Your task to perform on an android device: turn off notifications settings in the gmail app Image 0: 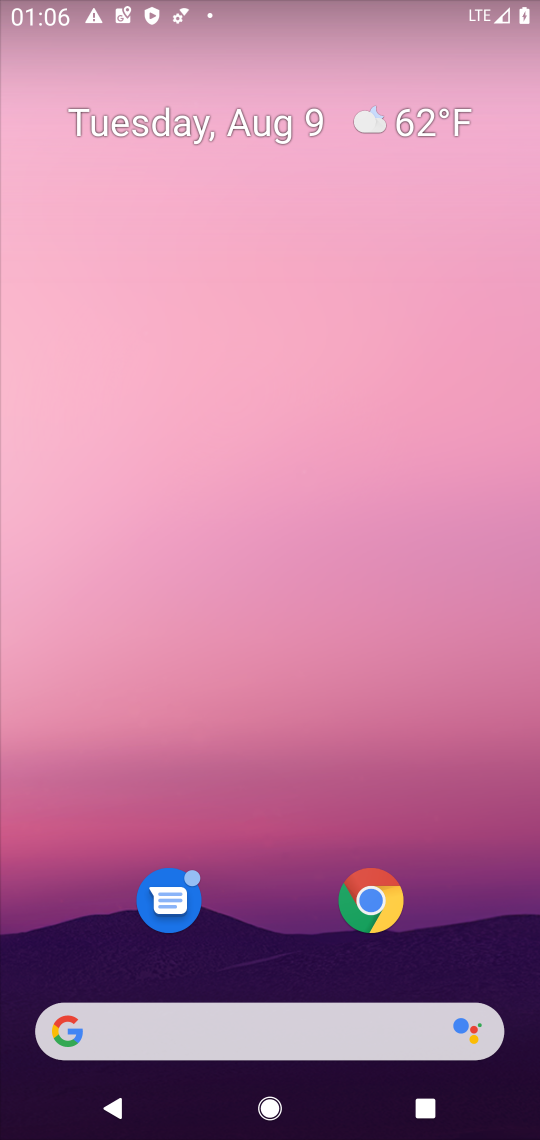
Step 0: press home button
Your task to perform on an android device: turn off notifications settings in the gmail app Image 1: 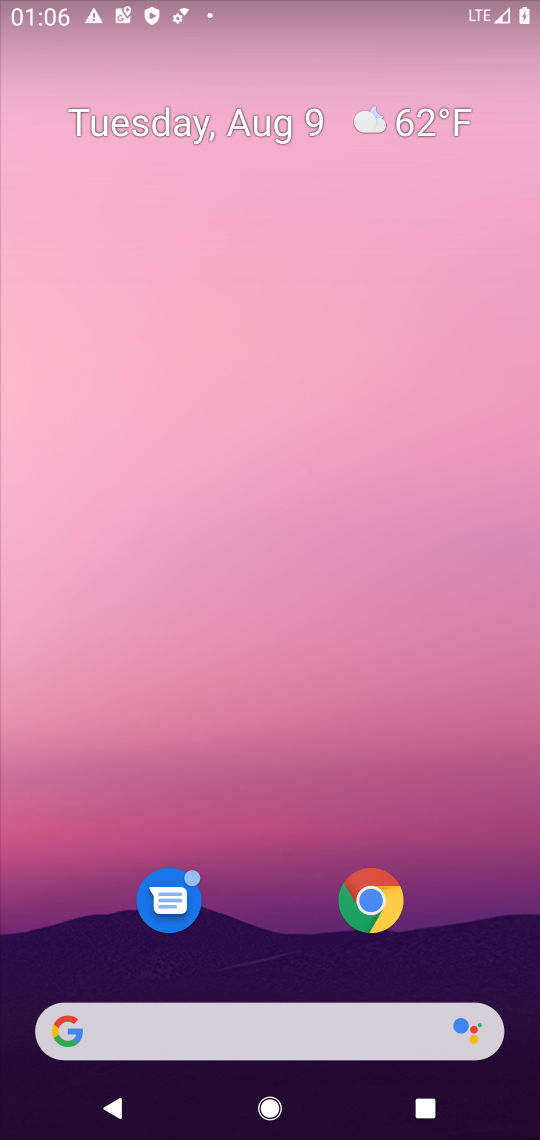
Step 1: drag from (289, 945) to (327, 199)
Your task to perform on an android device: turn off notifications settings in the gmail app Image 2: 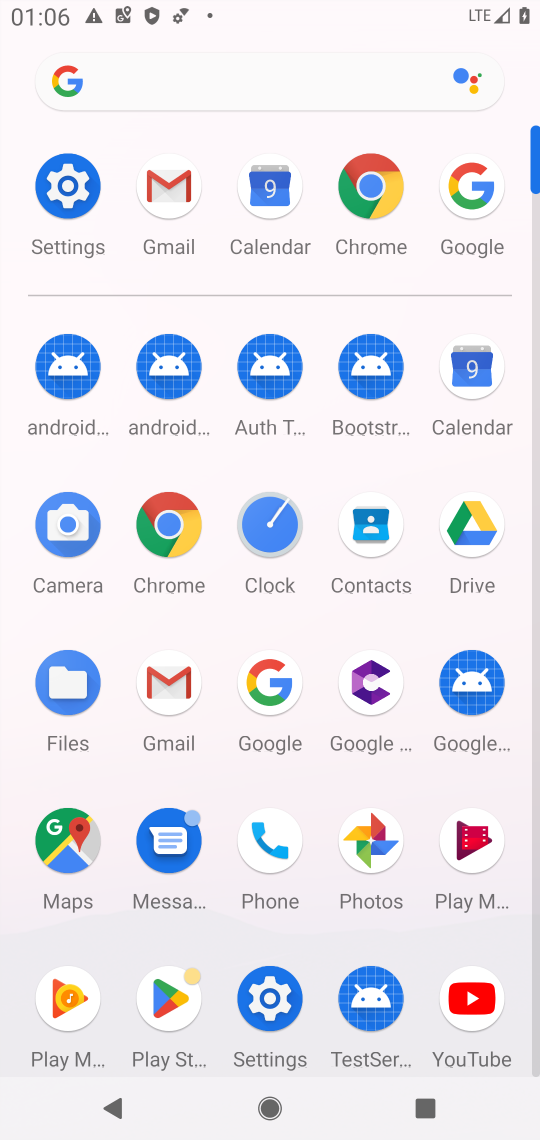
Step 2: click (168, 670)
Your task to perform on an android device: turn off notifications settings in the gmail app Image 3: 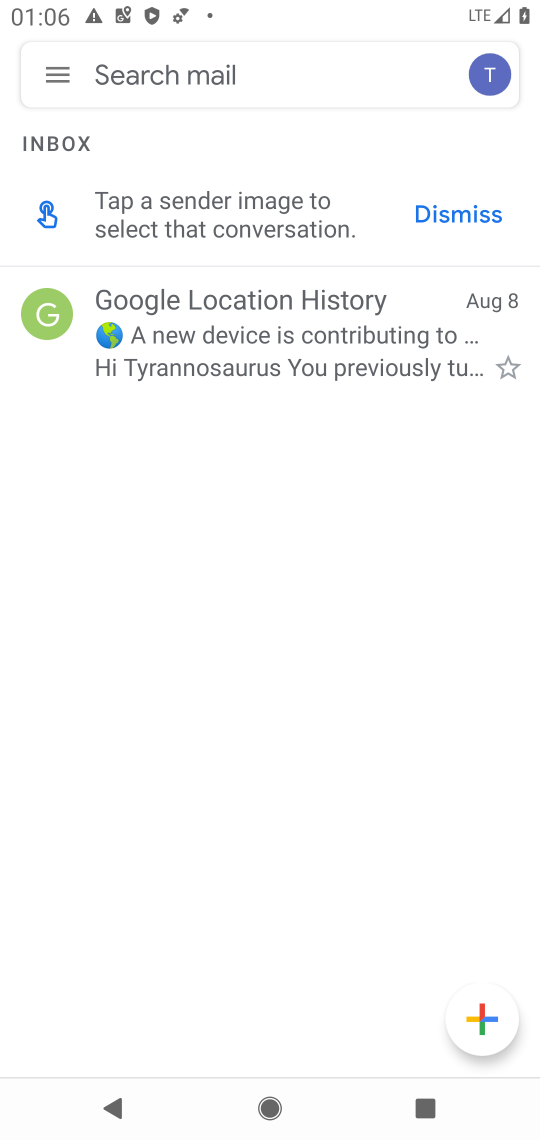
Step 3: click (58, 80)
Your task to perform on an android device: turn off notifications settings in the gmail app Image 4: 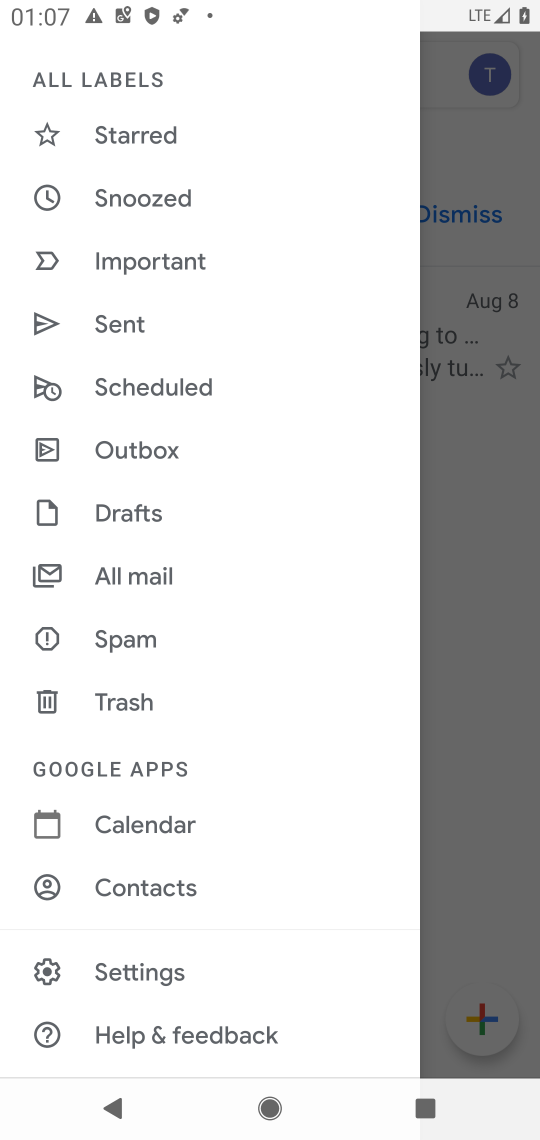
Step 4: click (146, 977)
Your task to perform on an android device: turn off notifications settings in the gmail app Image 5: 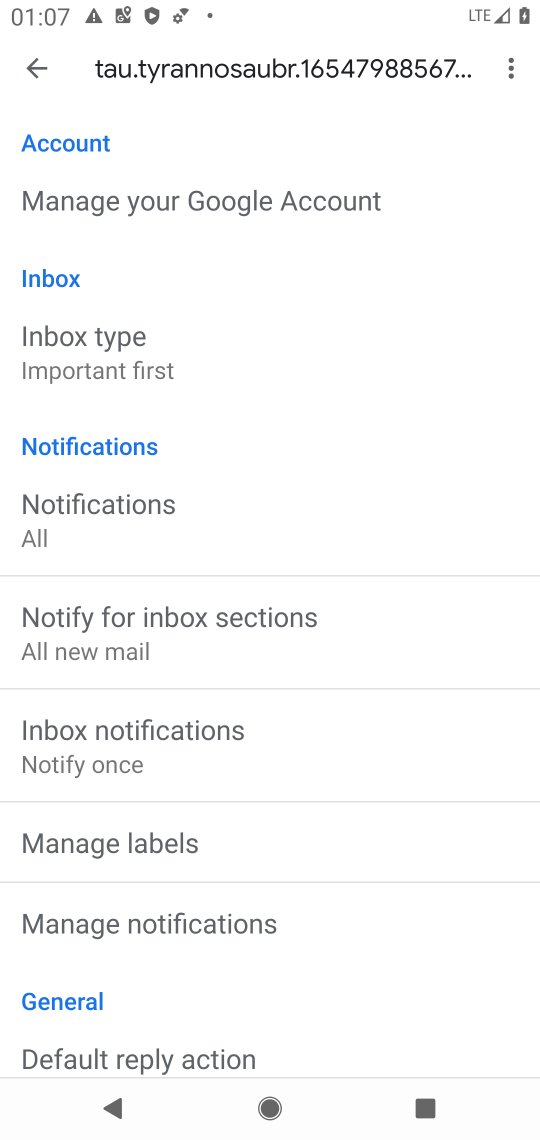
Step 5: drag from (401, 783) to (401, 592)
Your task to perform on an android device: turn off notifications settings in the gmail app Image 6: 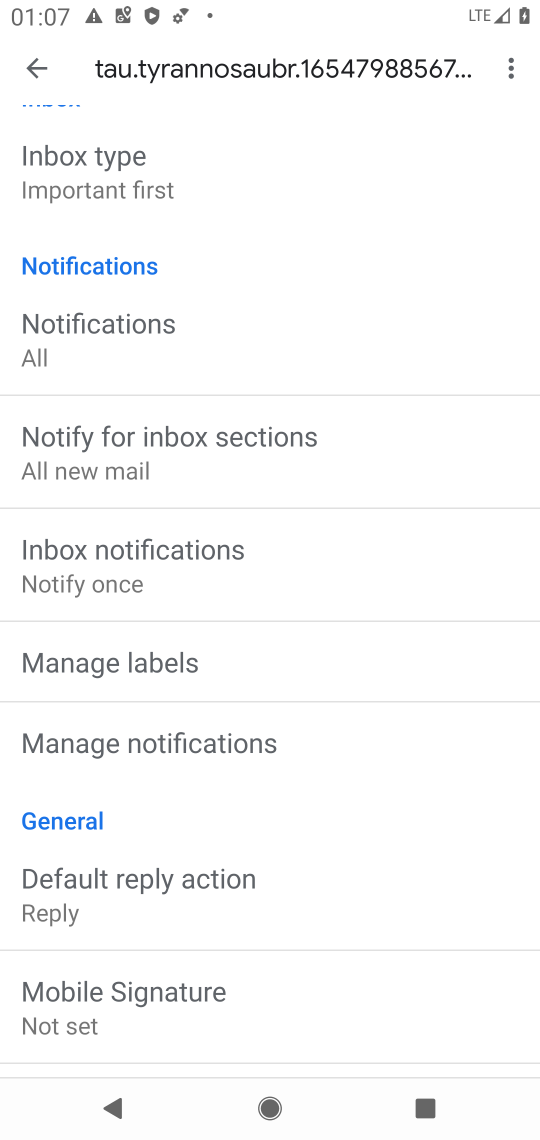
Step 6: drag from (405, 948) to (418, 696)
Your task to perform on an android device: turn off notifications settings in the gmail app Image 7: 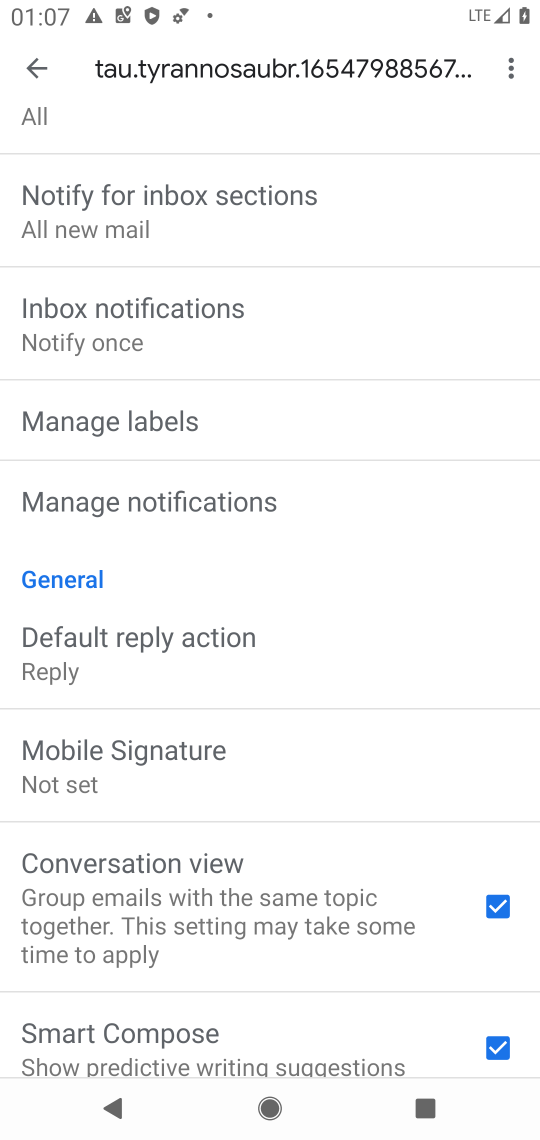
Step 7: drag from (407, 943) to (423, 619)
Your task to perform on an android device: turn off notifications settings in the gmail app Image 8: 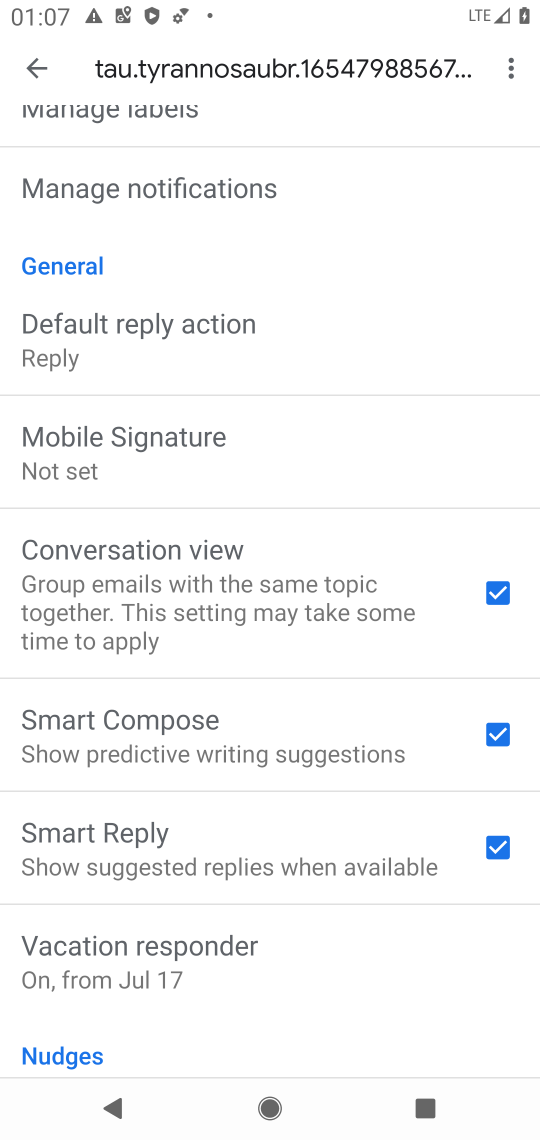
Step 8: drag from (328, 944) to (378, 558)
Your task to perform on an android device: turn off notifications settings in the gmail app Image 9: 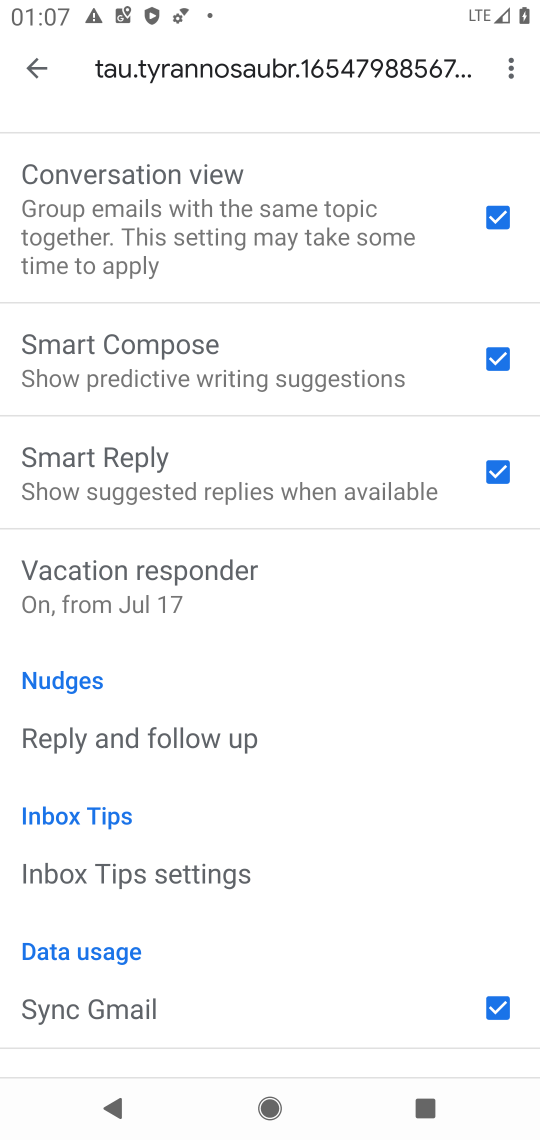
Step 9: drag from (382, 760) to (418, 446)
Your task to perform on an android device: turn off notifications settings in the gmail app Image 10: 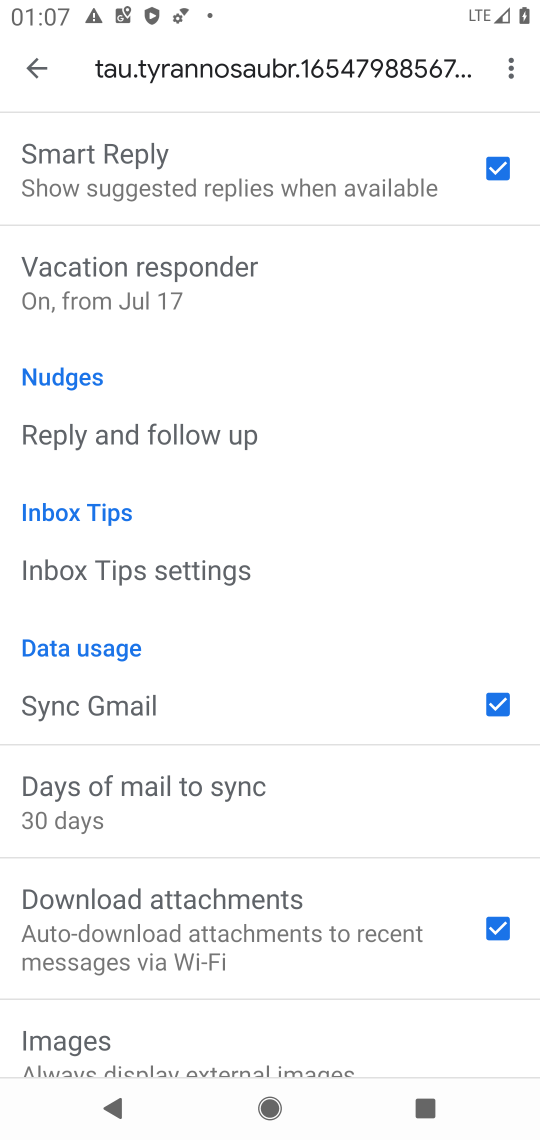
Step 10: drag from (400, 132) to (406, 358)
Your task to perform on an android device: turn off notifications settings in the gmail app Image 11: 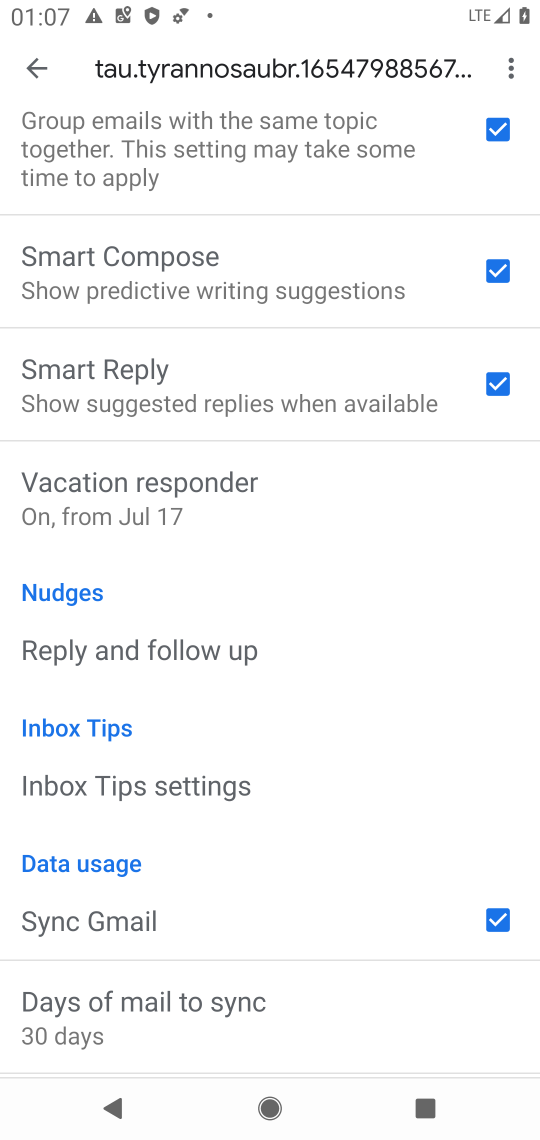
Step 11: drag from (403, 137) to (409, 574)
Your task to perform on an android device: turn off notifications settings in the gmail app Image 12: 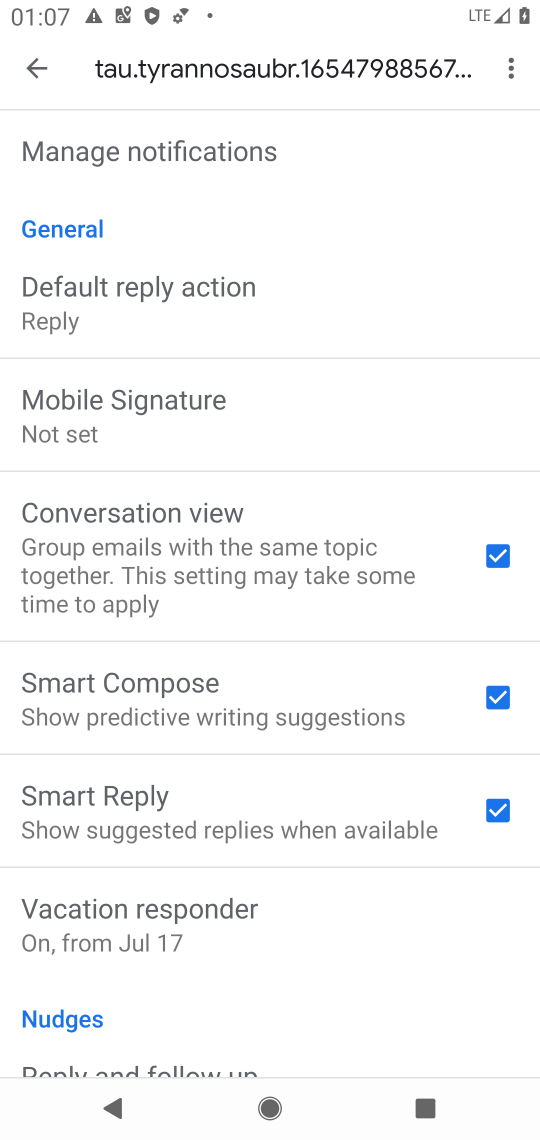
Step 12: drag from (412, 199) to (417, 573)
Your task to perform on an android device: turn off notifications settings in the gmail app Image 13: 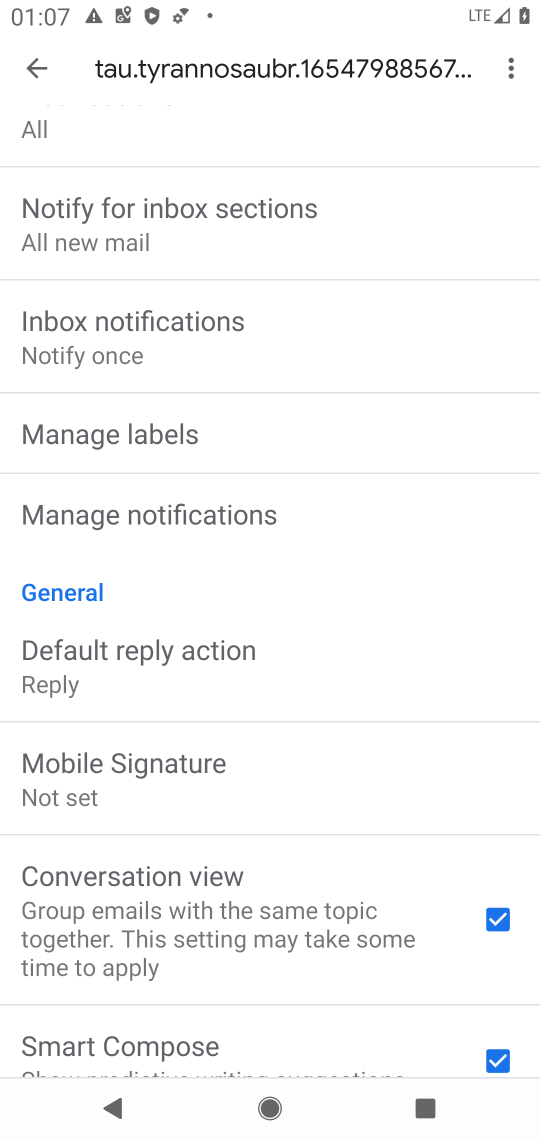
Step 13: drag from (404, 264) to (414, 553)
Your task to perform on an android device: turn off notifications settings in the gmail app Image 14: 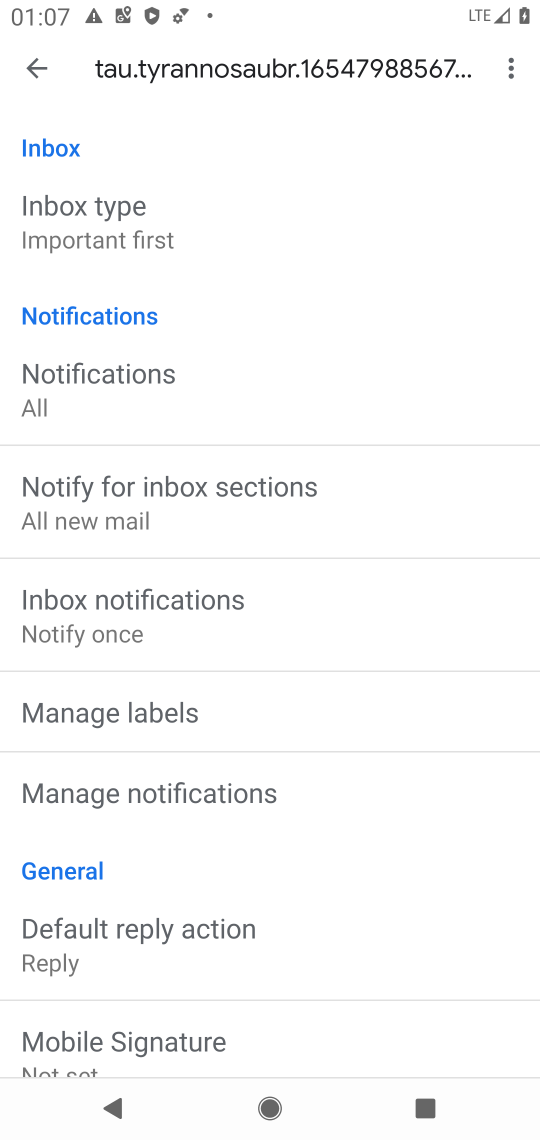
Step 14: drag from (426, 277) to (416, 546)
Your task to perform on an android device: turn off notifications settings in the gmail app Image 15: 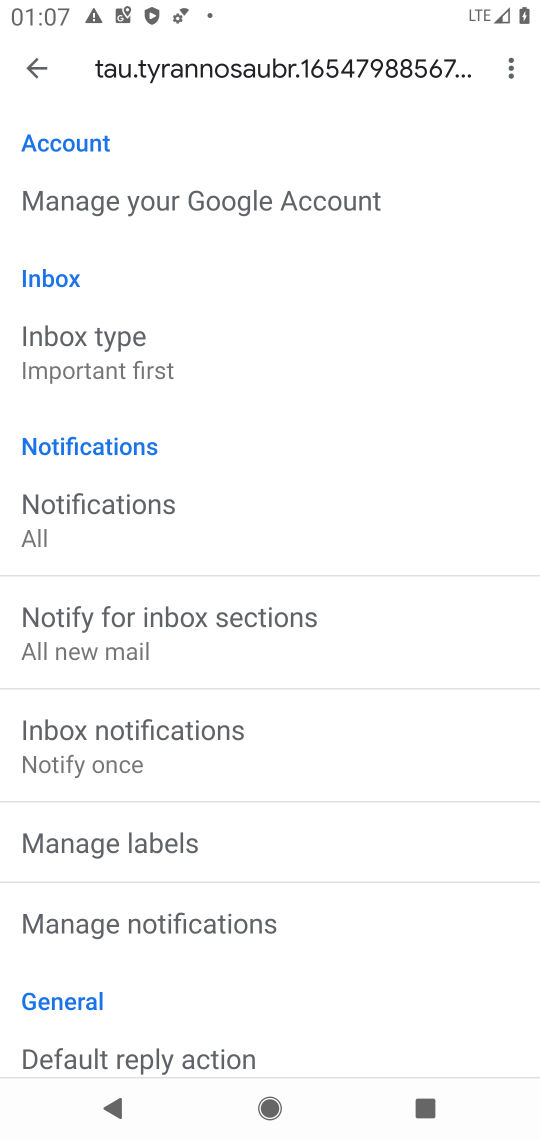
Step 15: click (323, 931)
Your task to perform on an android device: turn off notifications settings in the gmail app Image 16: 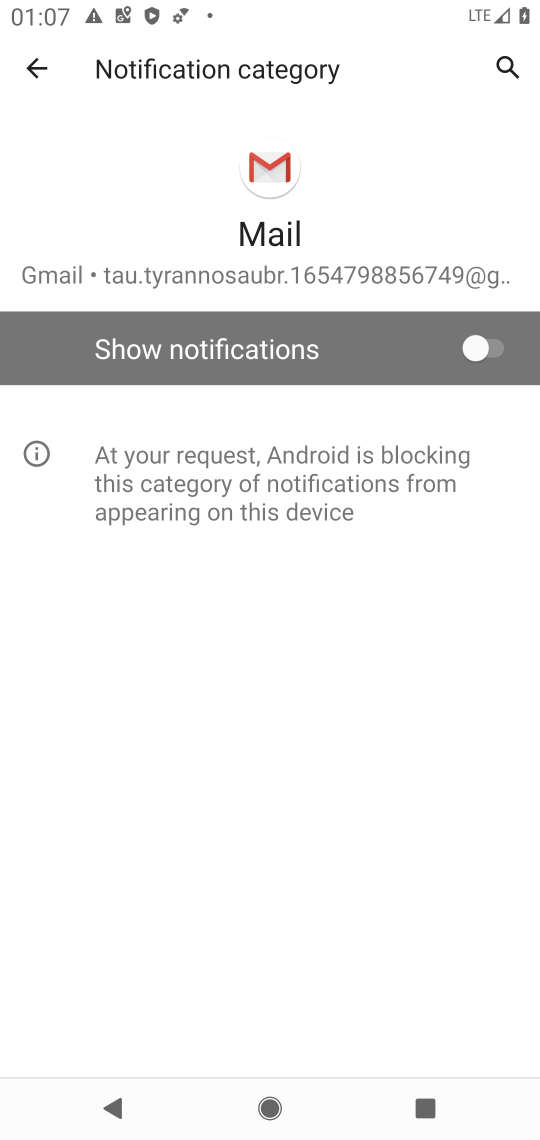
Step 16: task complete